Your task to perform on an android device: Open my contact list Image 0: 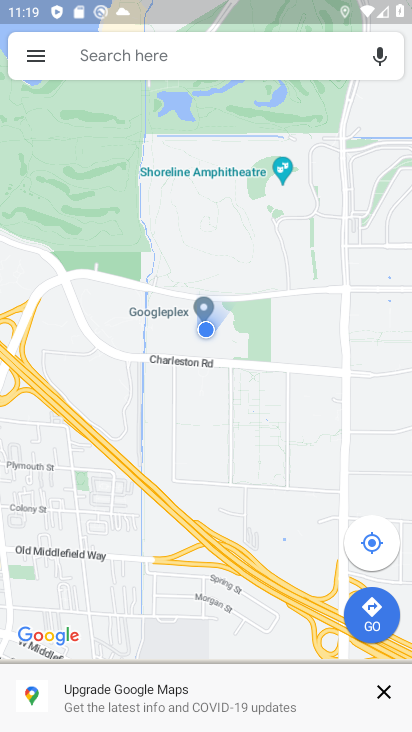
Step 0: press home button
Your task to perform on an android device: Open my contact list Image 1: 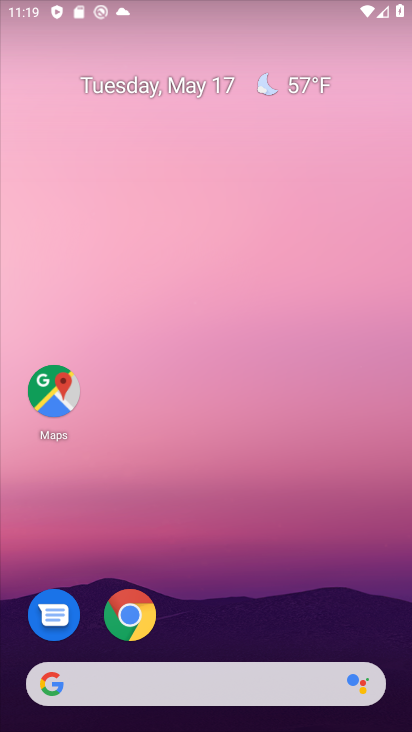
Step 1: drag from (368, 607) to (224, 18)
Your task to perform on an android device: Open my contact list Image 2: 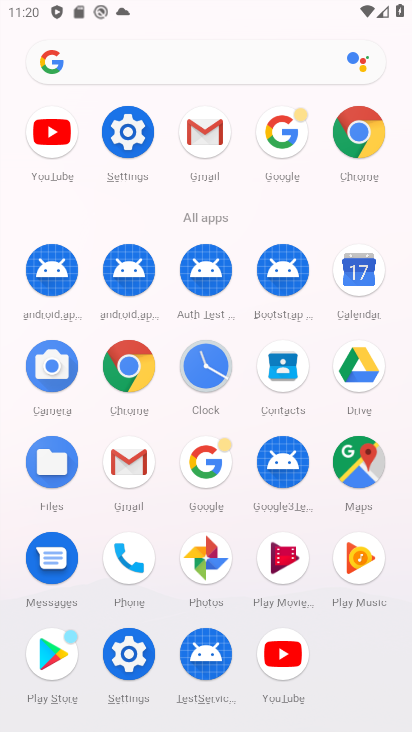
Step 2: click (291, 375)
Your task to perform on an android device: Open my contact list Image 3: 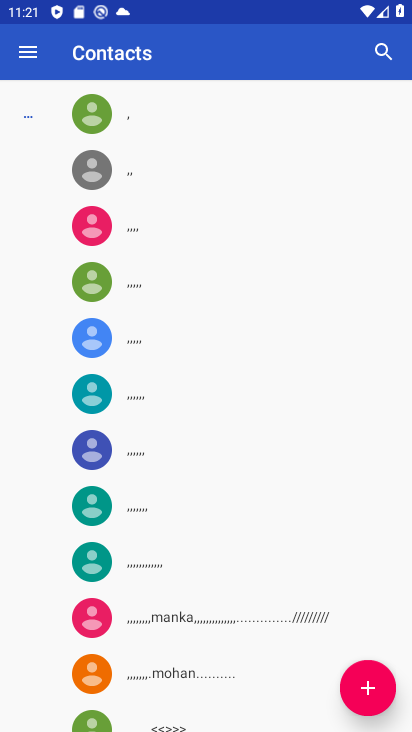
Step 3: task complete